Your task to perform on an android device: Open notification settings Image 0: 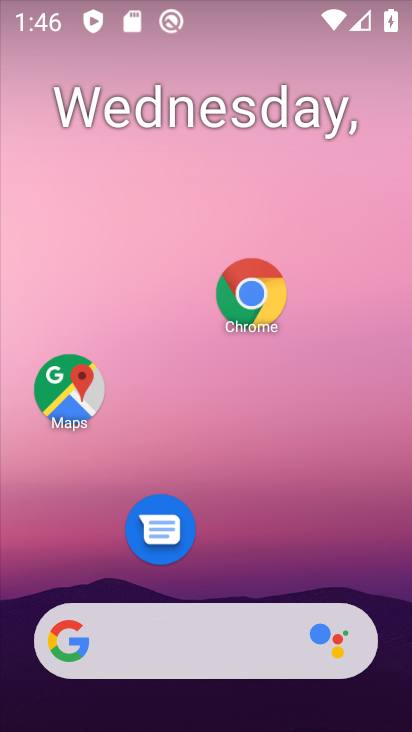
Step 0: drag from (282, 570) to (290, 131)
Your task to perform on an android device: Open notification settings Image 1: 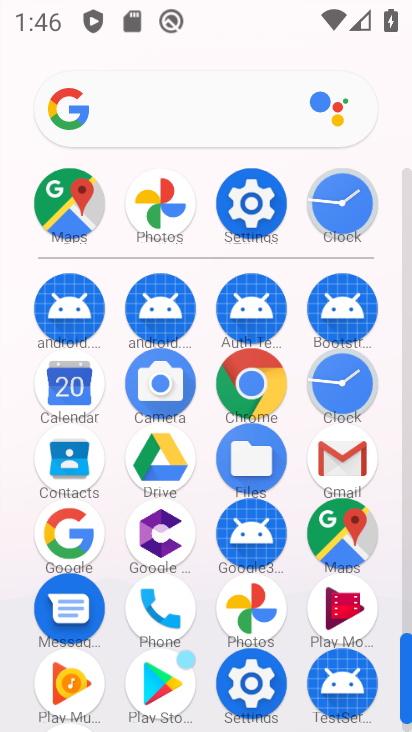
Step 1: click (256, 215)
Your task to perform on an android device: Open notification settings Image 2: 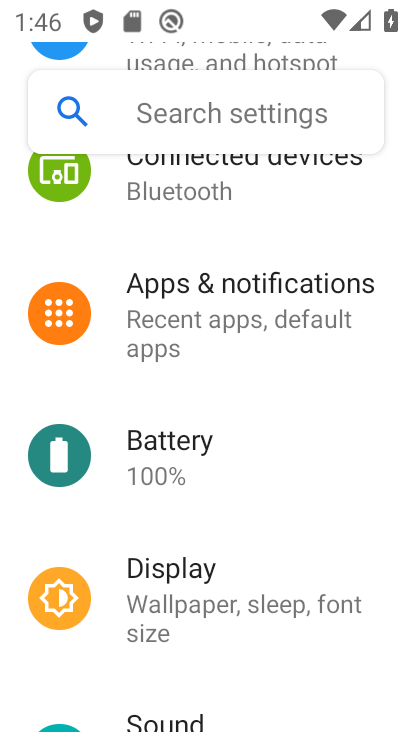
Step 2: click (241, 298)
Your task to perform on an android device: Open notification settings Image 3: 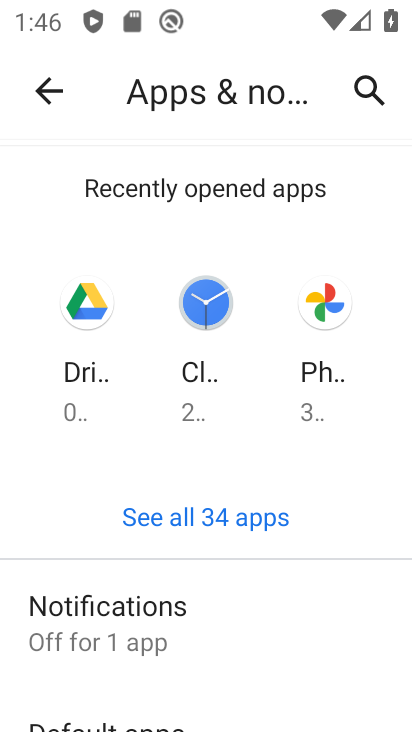
Step 3: task complete